Your task to perform on an android device: allow notifications from all sites in the chrome app Image 0: 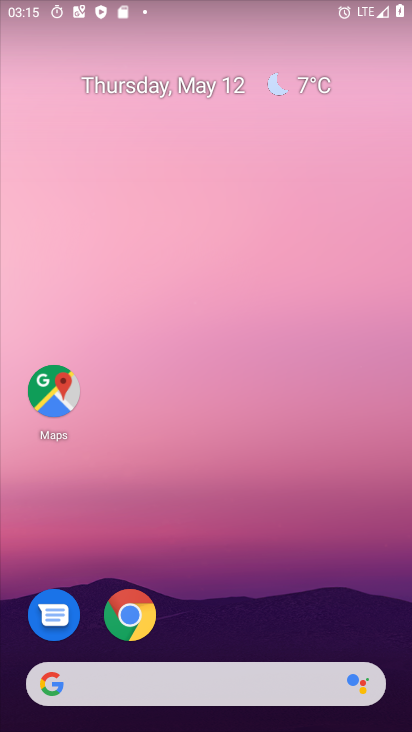
Step 0: click (149, 616)
Your task to perform on an android device: allow notifications from all sites in the chrome app Image 1: 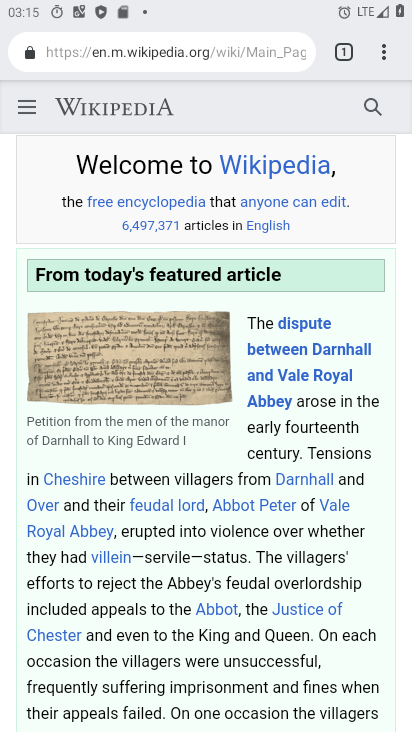
Step 1: click (389, 47)
Your task to perform on an android device: allow notifications from all sites in the chrome app Image 2: 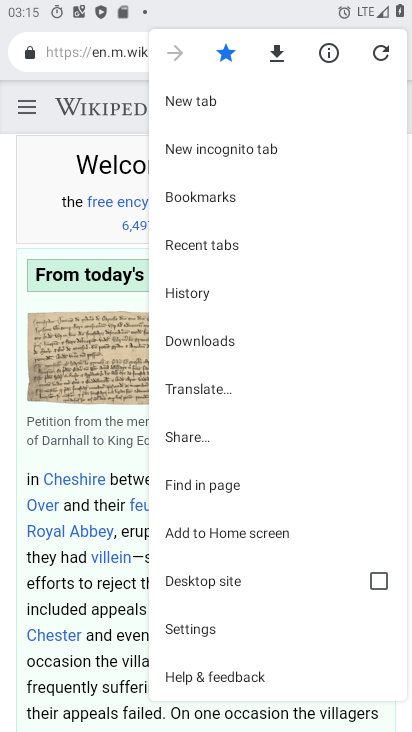
Step 2: drag from (245, 456) to (175, 49)
Your task to perform on an android device: allow notifications from all sites in the chrome app Image 3: 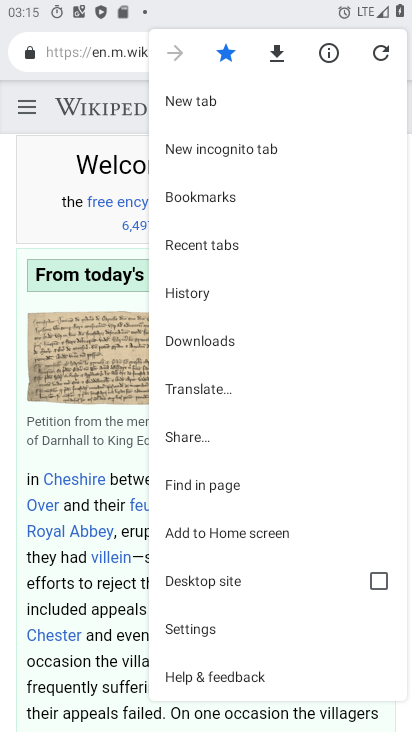
Step 3: click (216, 632)
Your task to perform on an android device: allow notifications from all sites in the chrome app Image 4: 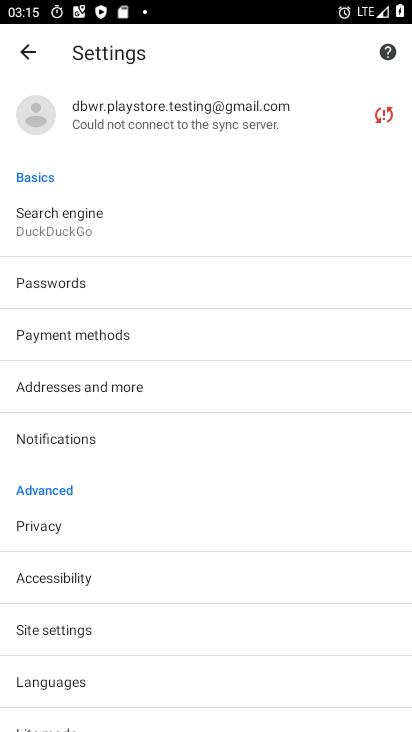
Step 4: drag from (140, 610) to (54, 195)
Your task to perform on an android device: allow notifications from all sites in the chrome app Image 5: 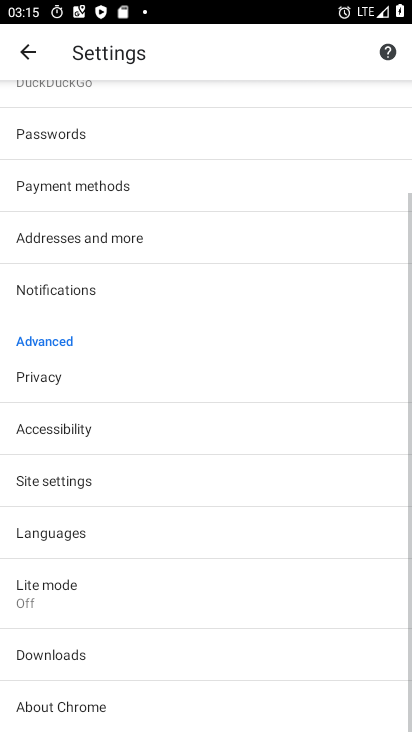
Step 5: drag from (162, 672) to (97, 217)
Your task to perform on an android device: allow notifications from all sites in the chrome app Image 6: 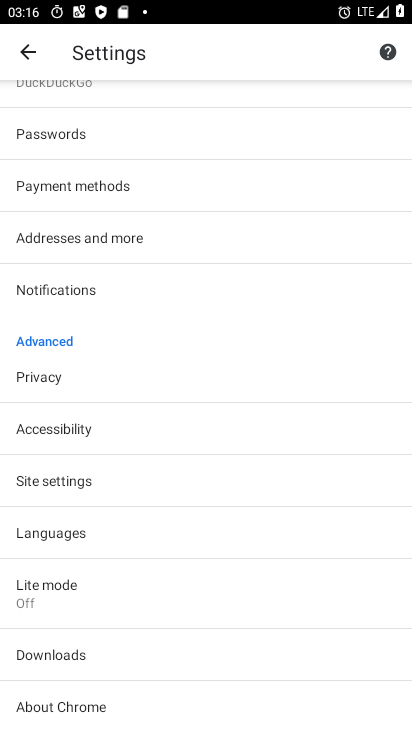
Step 6: click (104, 487)
Your task to perform on an android device: allow notifications from all sites in the chrome app Image 7: 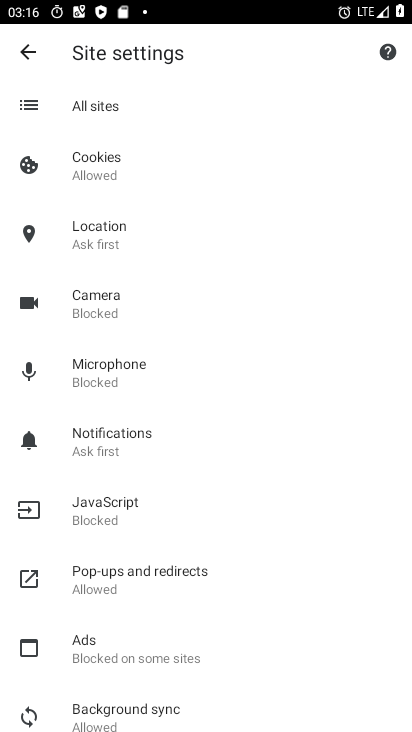
Step 7: click (167, 438)
Your task to perform on an android device: allow notifications from all sites in the chrome app Image 8: 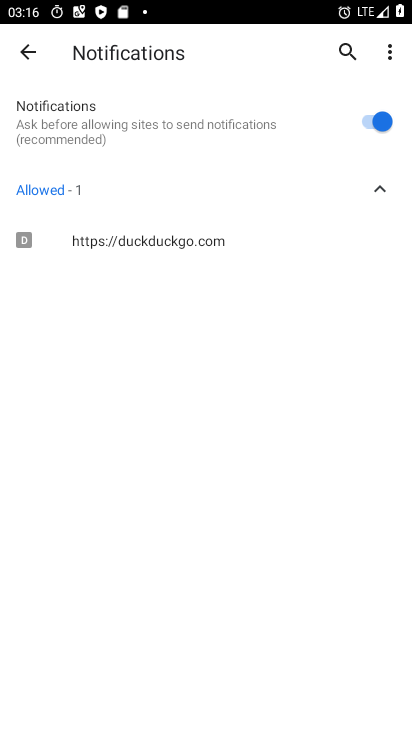
Step 8: task complete